Your task to perform on an android device: turn off sleep mode Image 0: 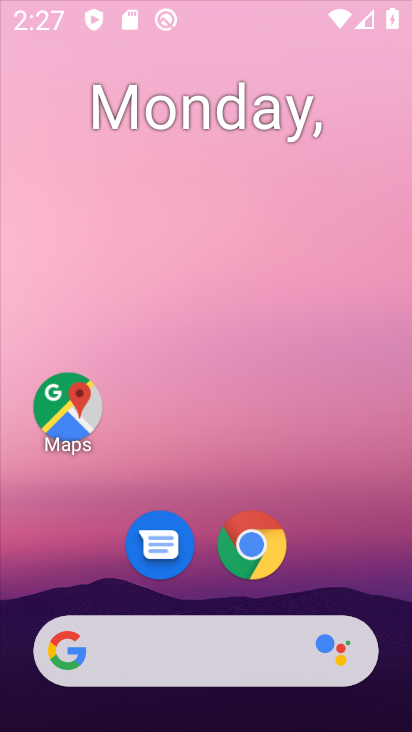
Step 0: drag from (229, 526) to (275, 154)
Your task to perform on an android device: turn off sleep mode Image 1: 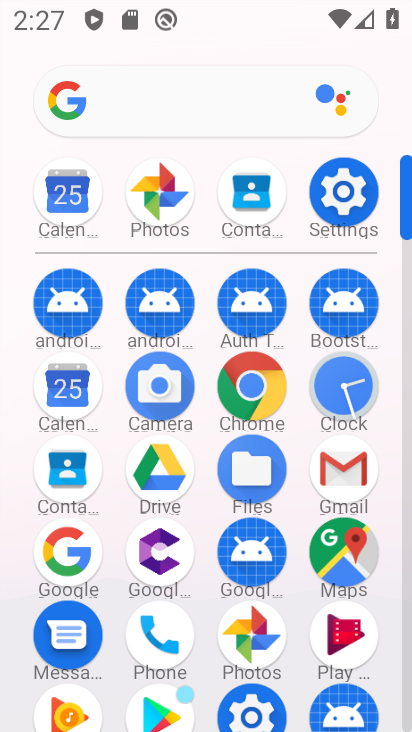
Step 1: click (340, 194)
Your task to perform on an android device: turn off sleep mode Image 2: 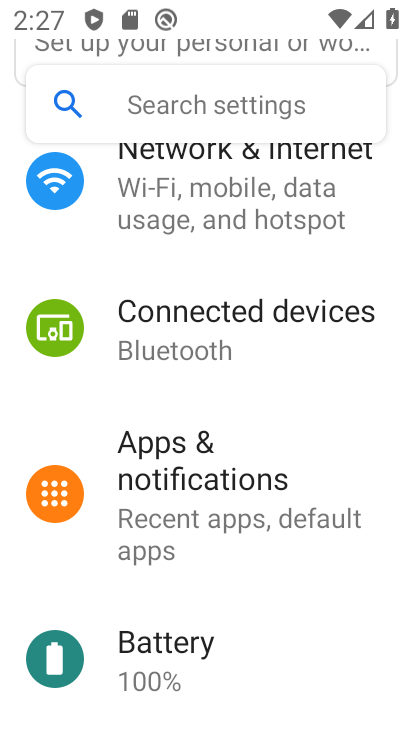
Step 2: click (174, 120)
Your task to perform on an android device: turn off sleep mode Image 3: 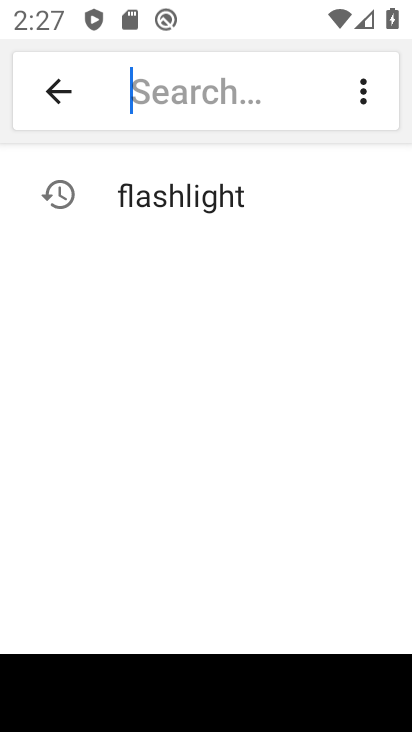
Step 3: type "sleep mode"
Your task to perform on an android device: turn off sleep mode Image 4: 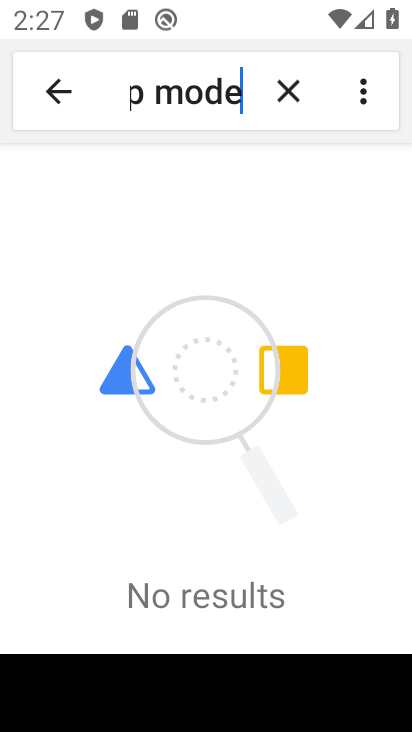
Step 4: task complete